Your task to perform on an android device: Add bose soundlink to the cart on target.com, then select checkout. Image 0: 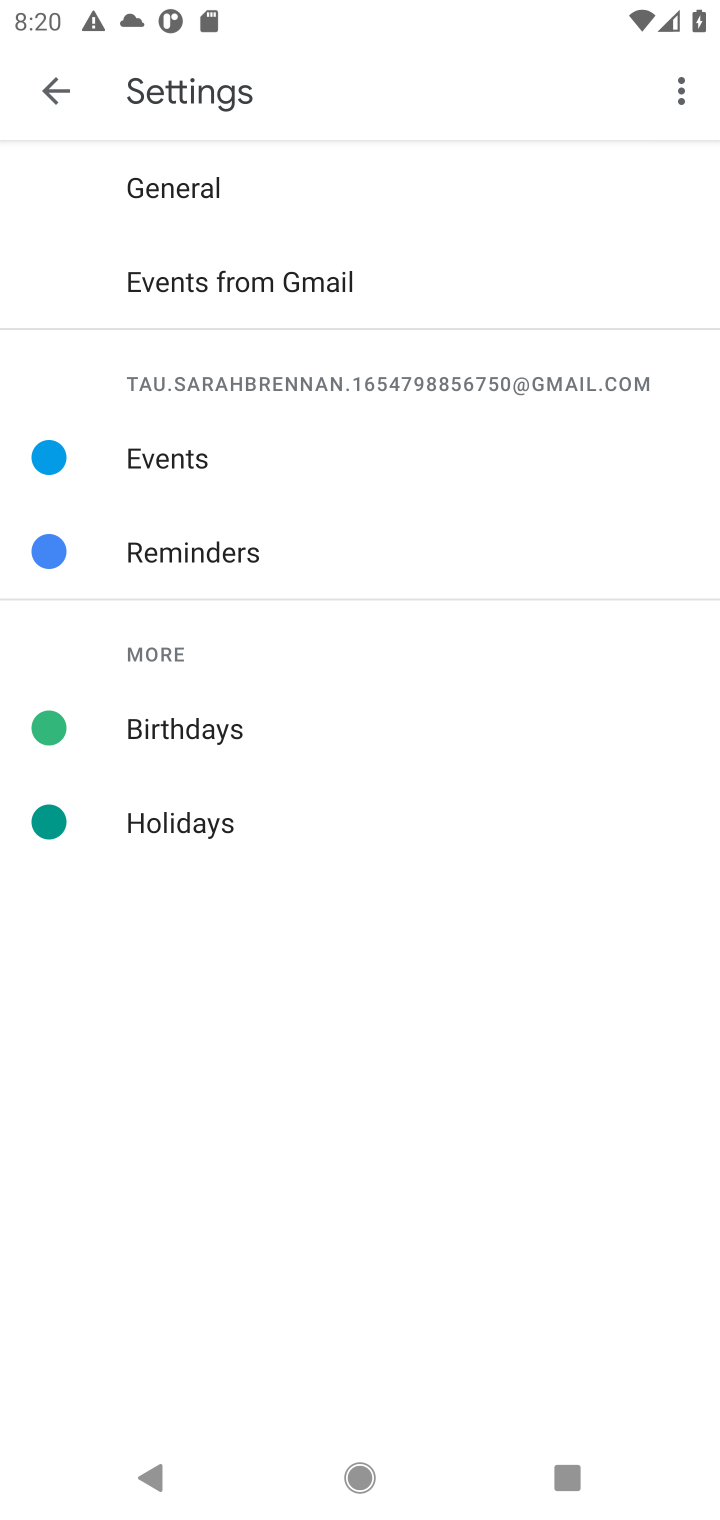
Step 0: press home button
Your task to perform on an android device: Add bose soundlink to the cart on target.com, then select checkout. Image 1: 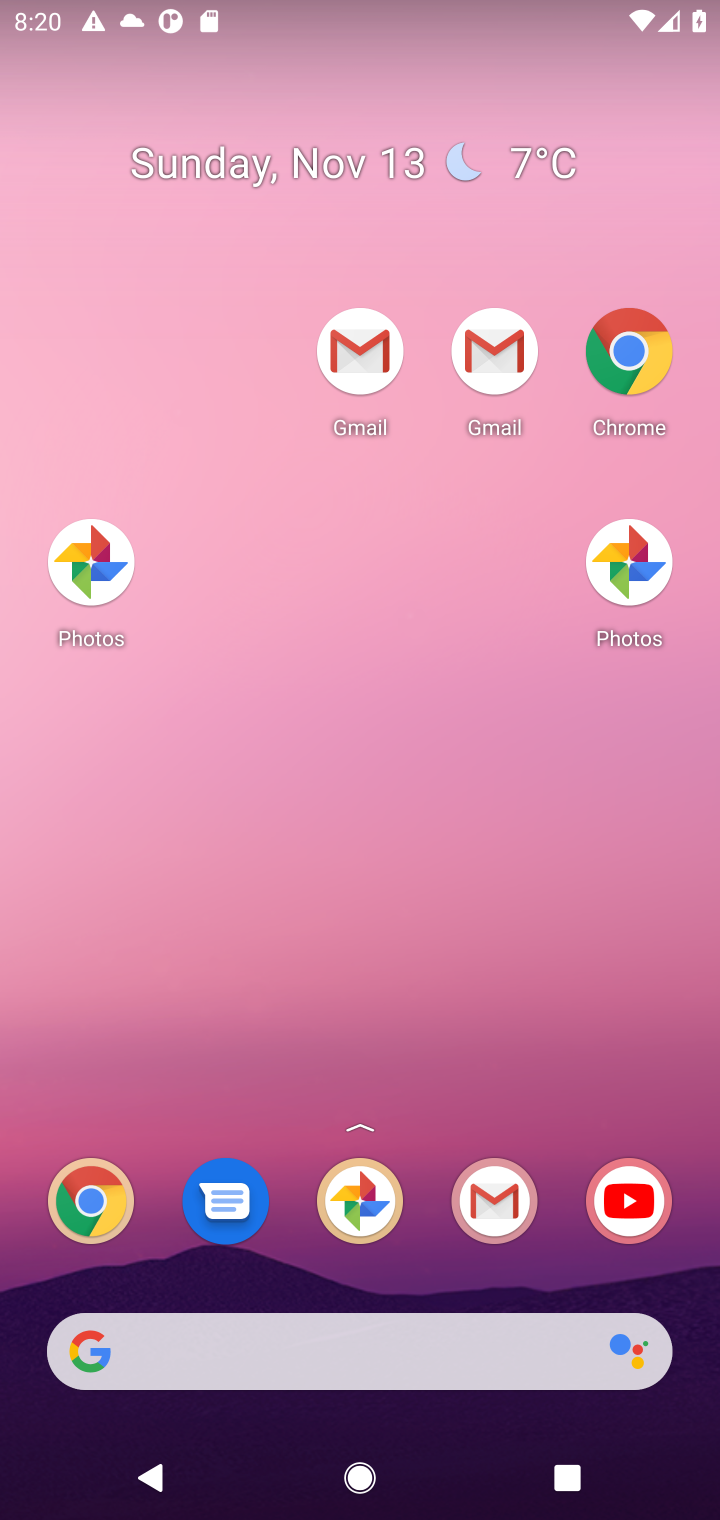
Step 1: drag from (429, 1262) to (301, 39)
Your task to perform on an android device: Add bose soundlink to the cart on target.com, then select checkout. Image 2: 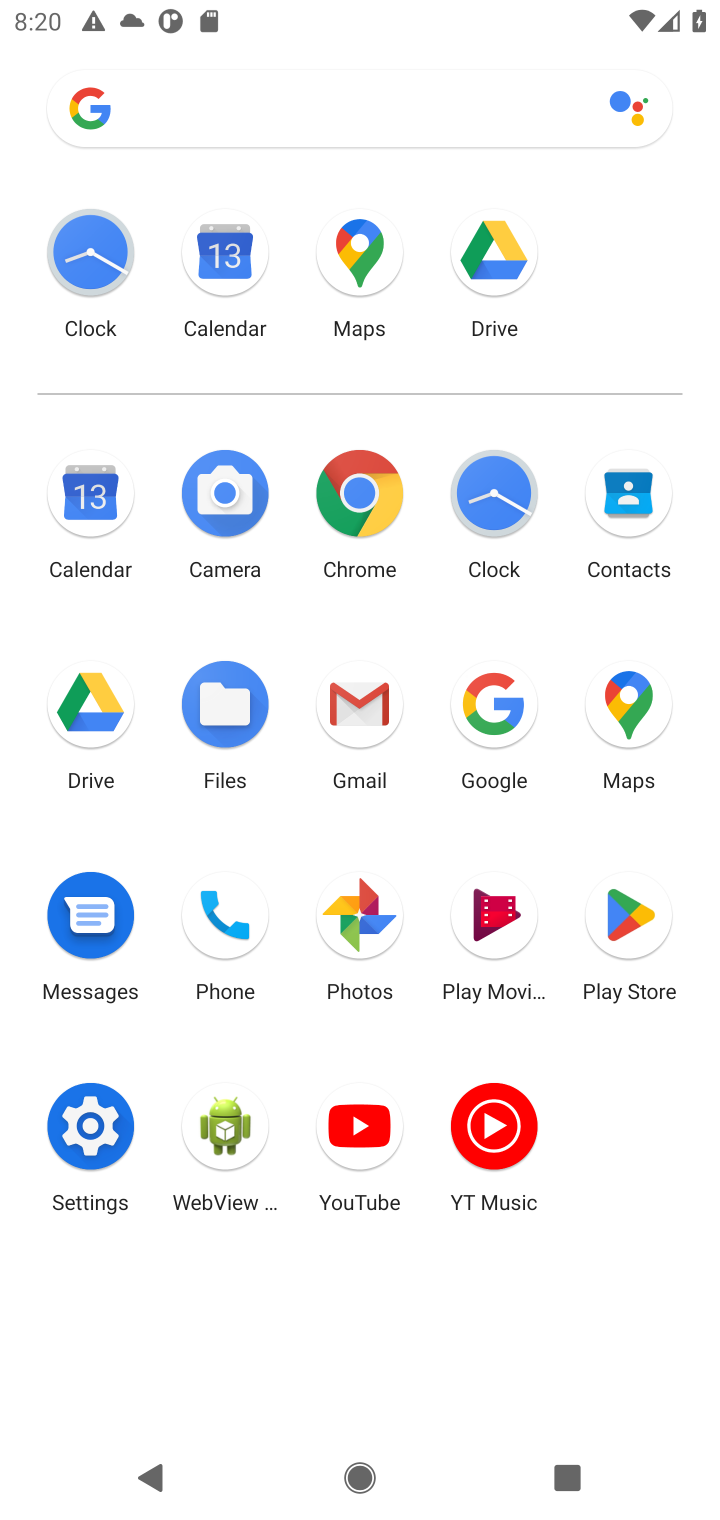
Step 2: click (354, 499)
Your task to perform on an android device: Add bose soundlink to the cart on target.com, then select checkout. Image 3: 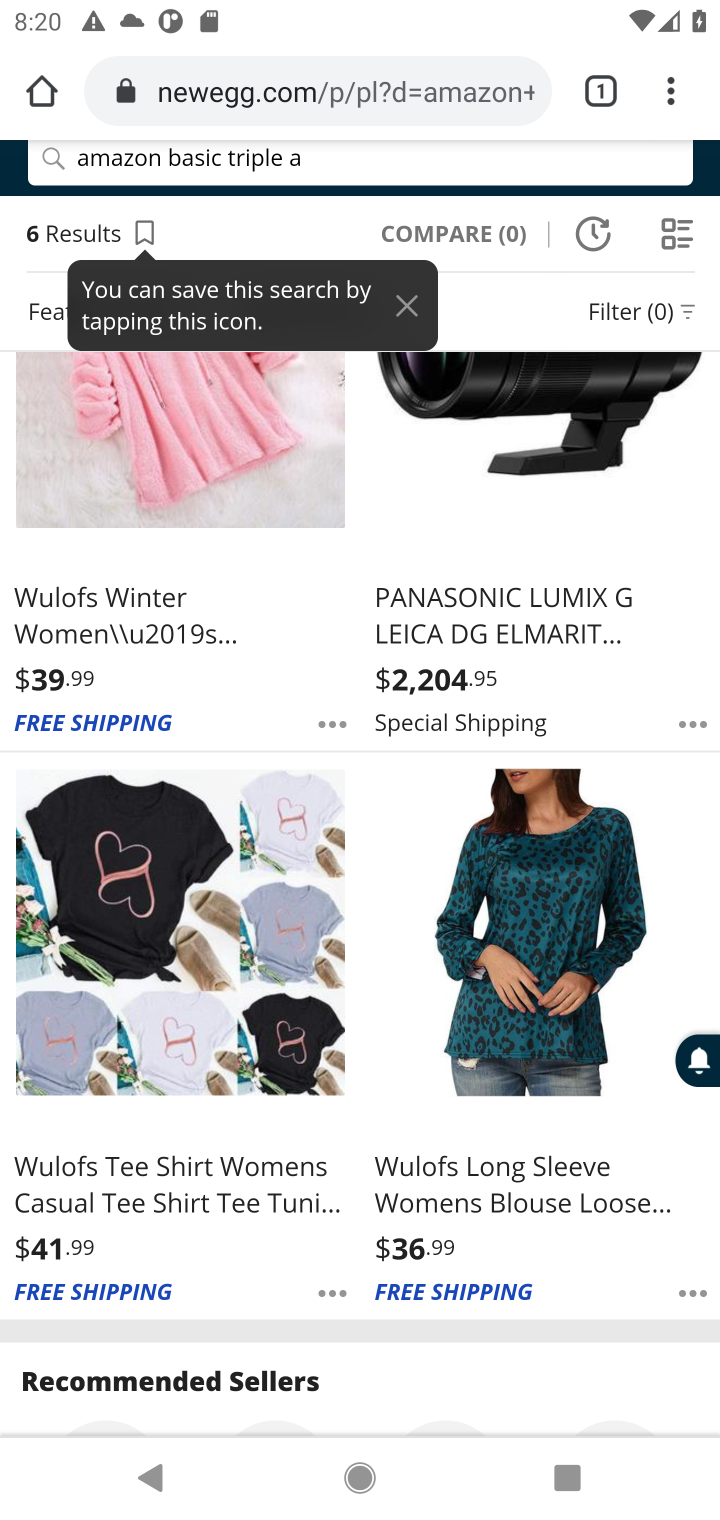
Step 3: click (402, 94)
Your task to perform on an android device: Add bose soundlink to the cart on target.com, then select checkout. Image 4: 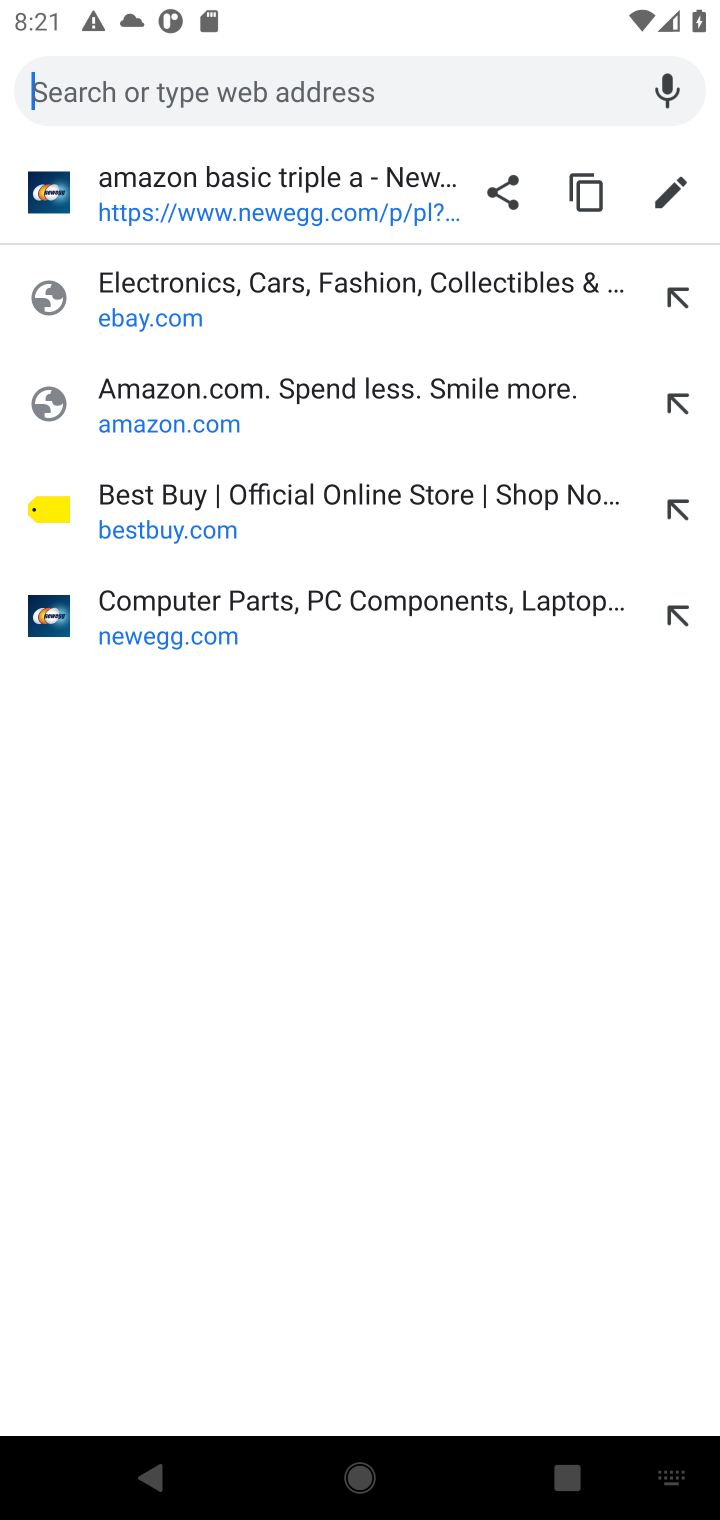
Step 4: type "target.com"
Your task to perform on an android device: Add bose soundlink to the cart on target.com, then select checkout. Image 5: 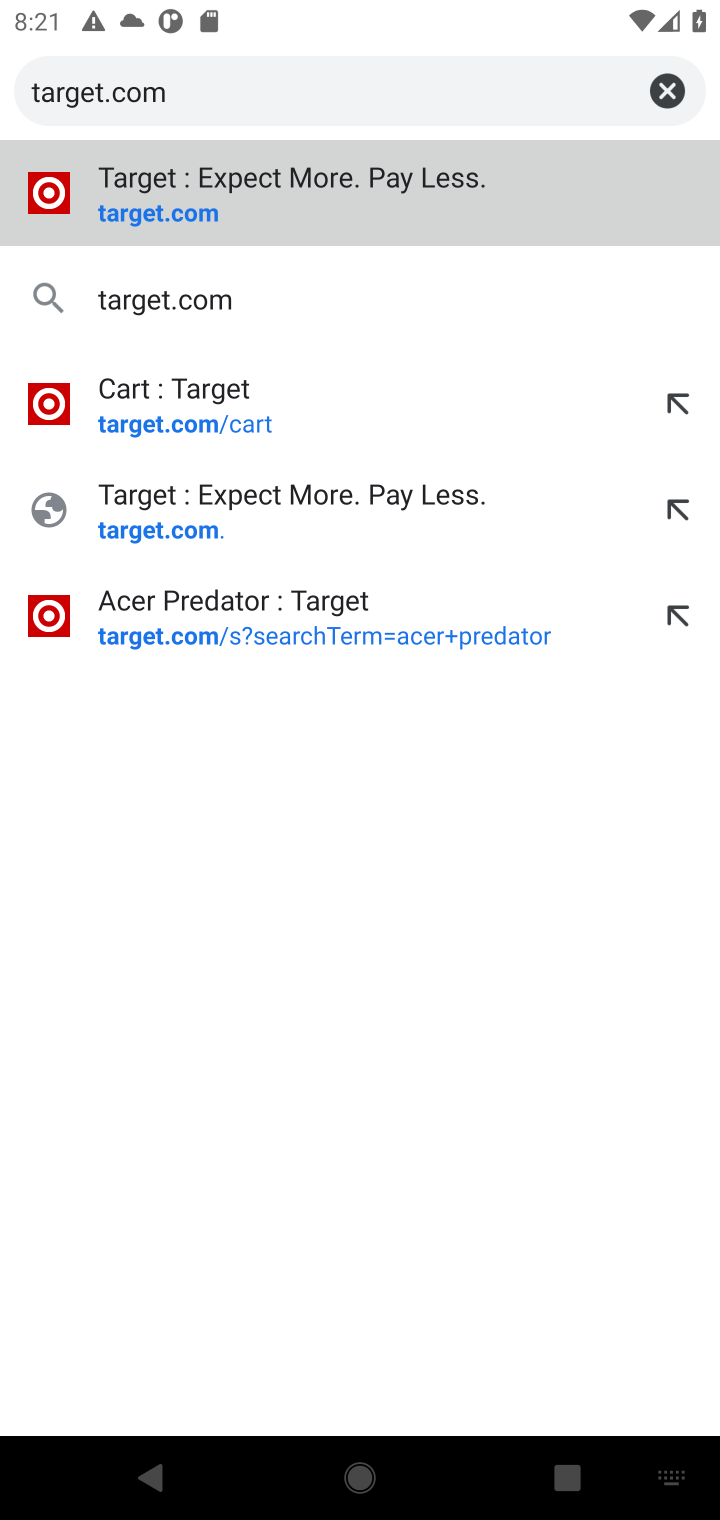
Step 5: press enter
Your task to perform on an android device: Add bose soundlink to the cart on target.com, then select checkout. Image 6: 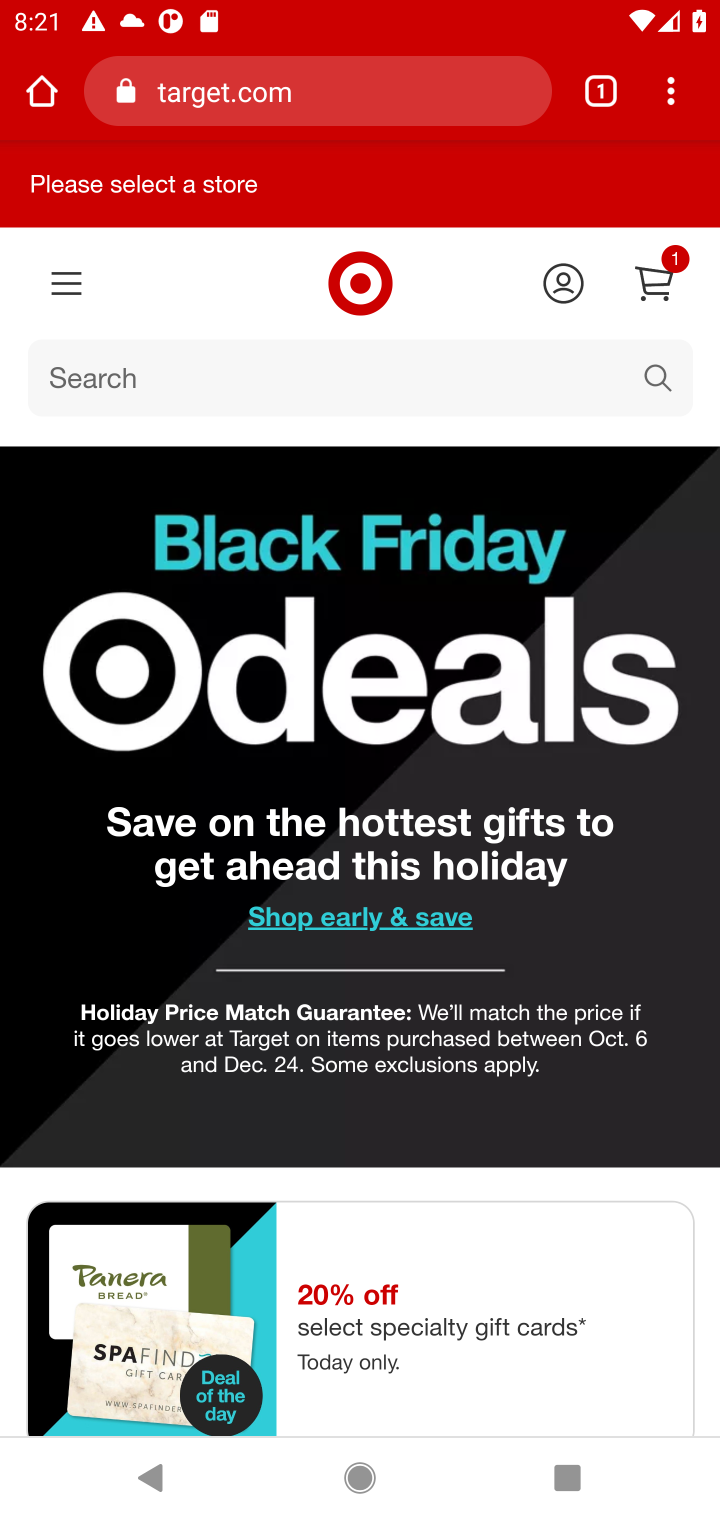
Step 6: click (284, 384)
Your task to perform on an android device: Add bose soundlink to the cart on target.com, then select checkout. Image 7: 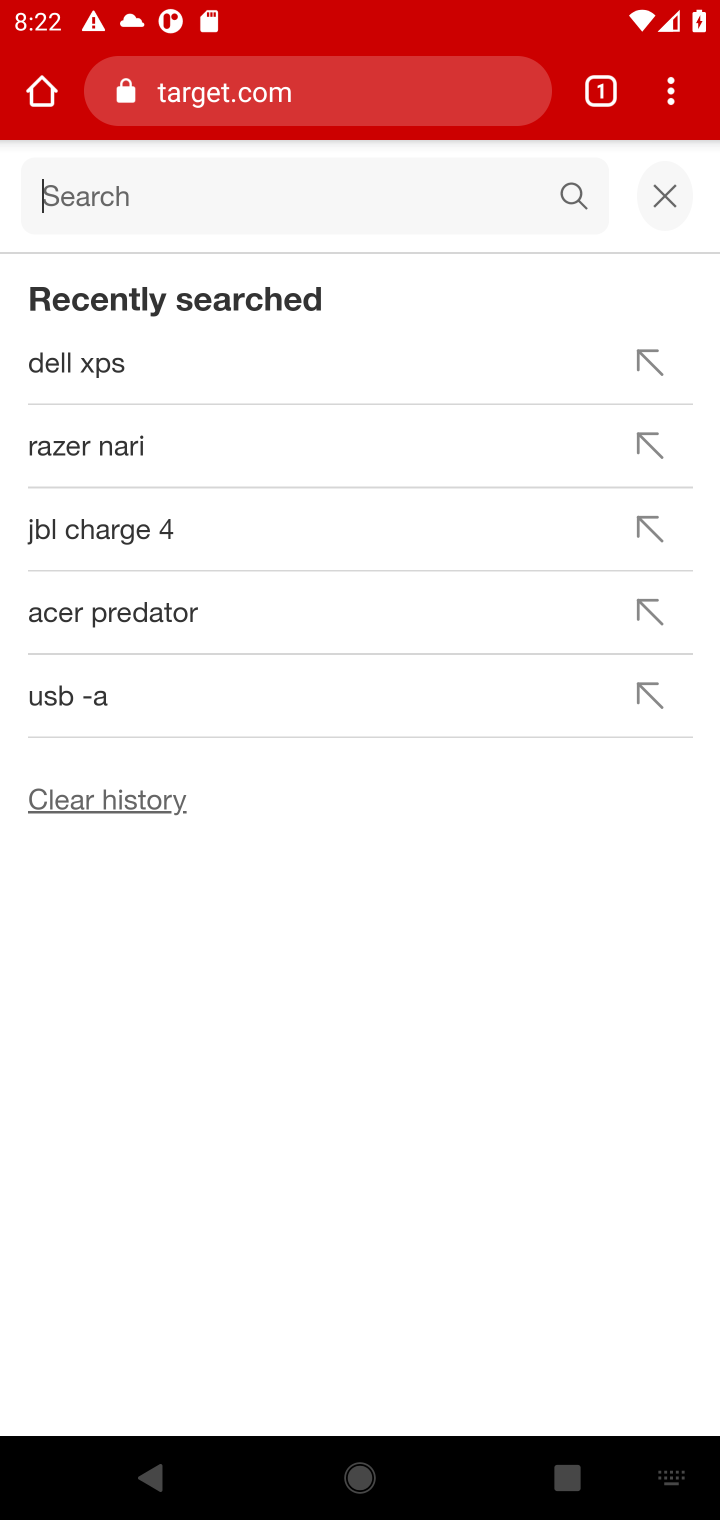
Step 7: type "bose soundlink"
Your task to perform on an android device: Add bose soundlink to the cart on target.com, then select checkout. Image 8: 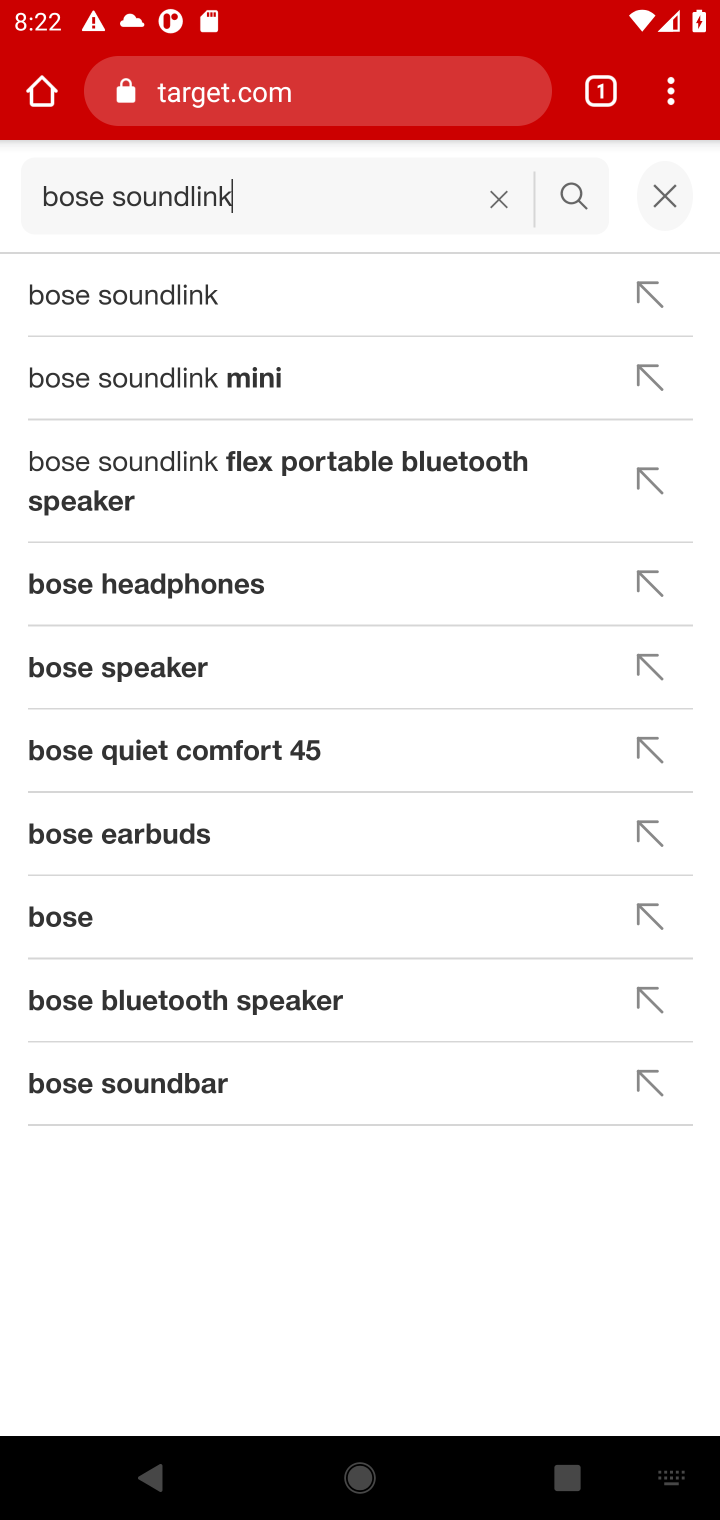
Step 8: press enter
Your task to perform on an android device: Add bose soundlink to the cart on target.com, then select checkout. Image 9: 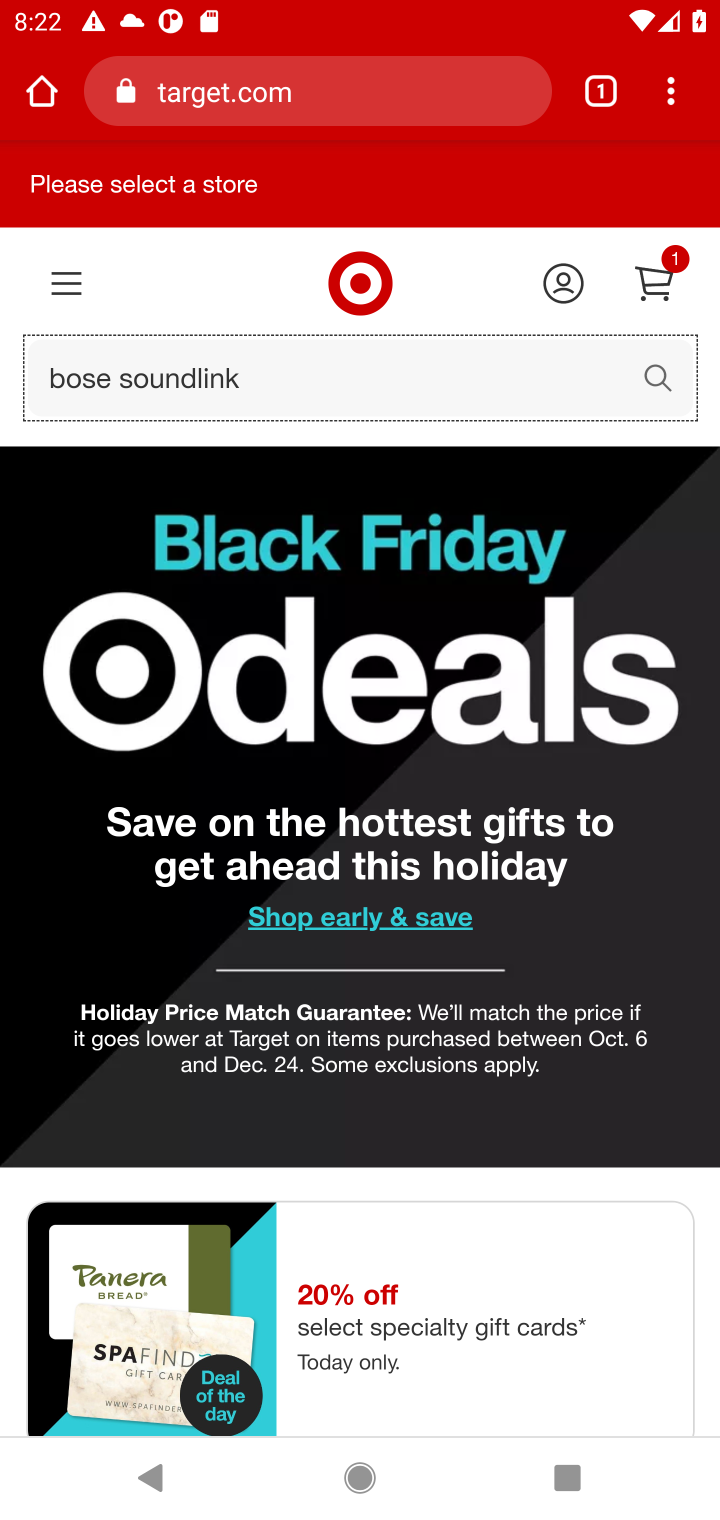
Step 9: press enter
Your task to perform on an android device: Add bose soundlink to the cart on target.com, then select checkout. Image 10: 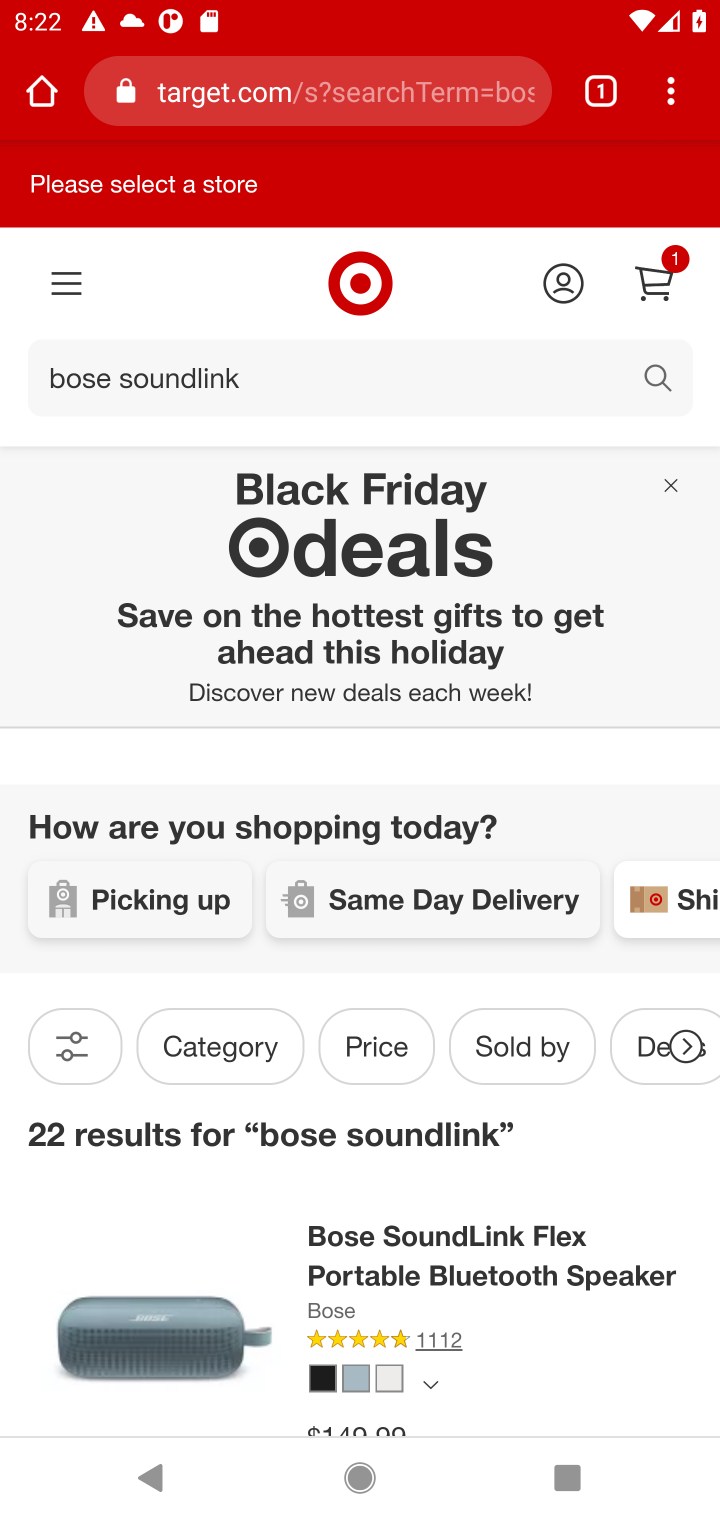
Step 10: drag from (459, 1124) to (461, 599)
Your task to perform on an android device: Add bose soundlink to the cart on target.com, then select checkout. Image 11: 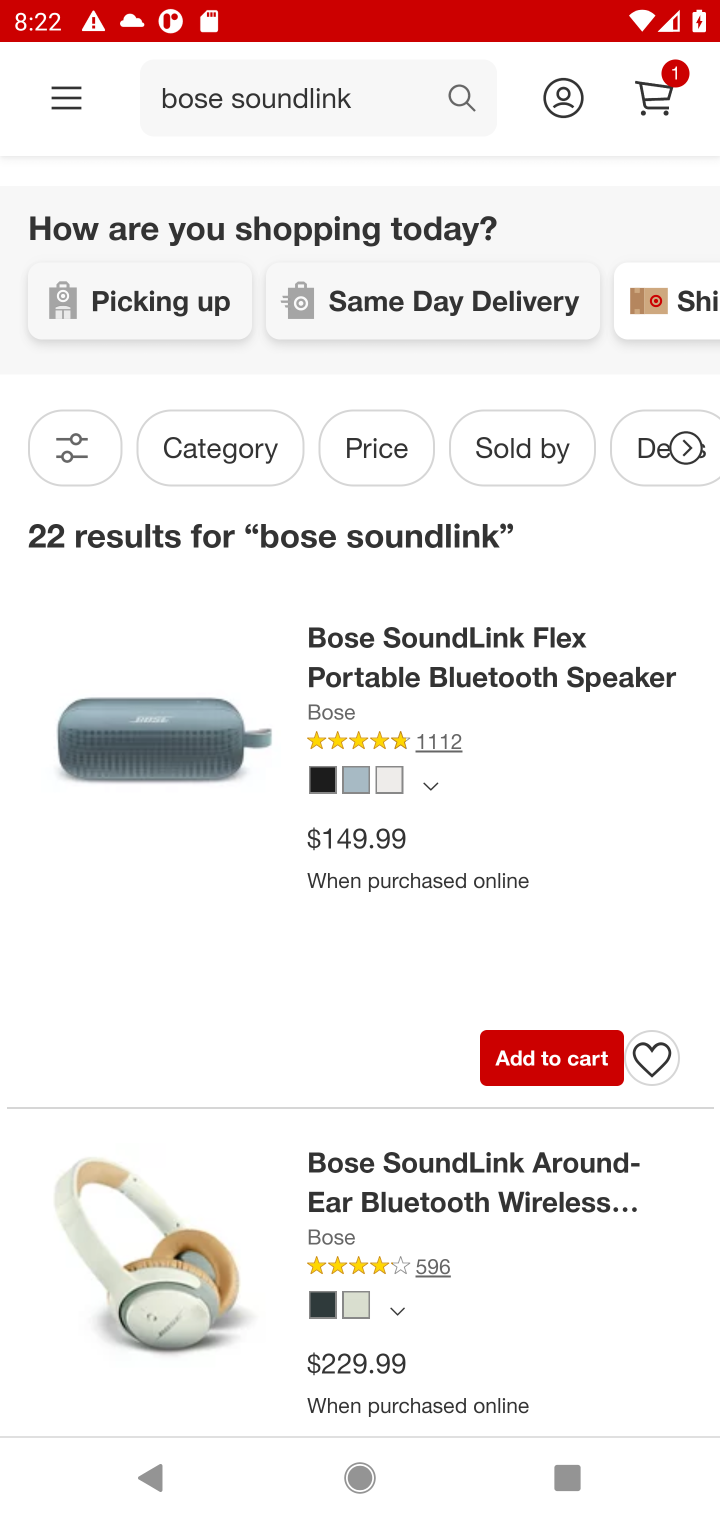
Step 11: click (558, 1066)
Your task to perform on an android device: Add bose soundlink to the cart on target.com, then select checkout. Image 12: 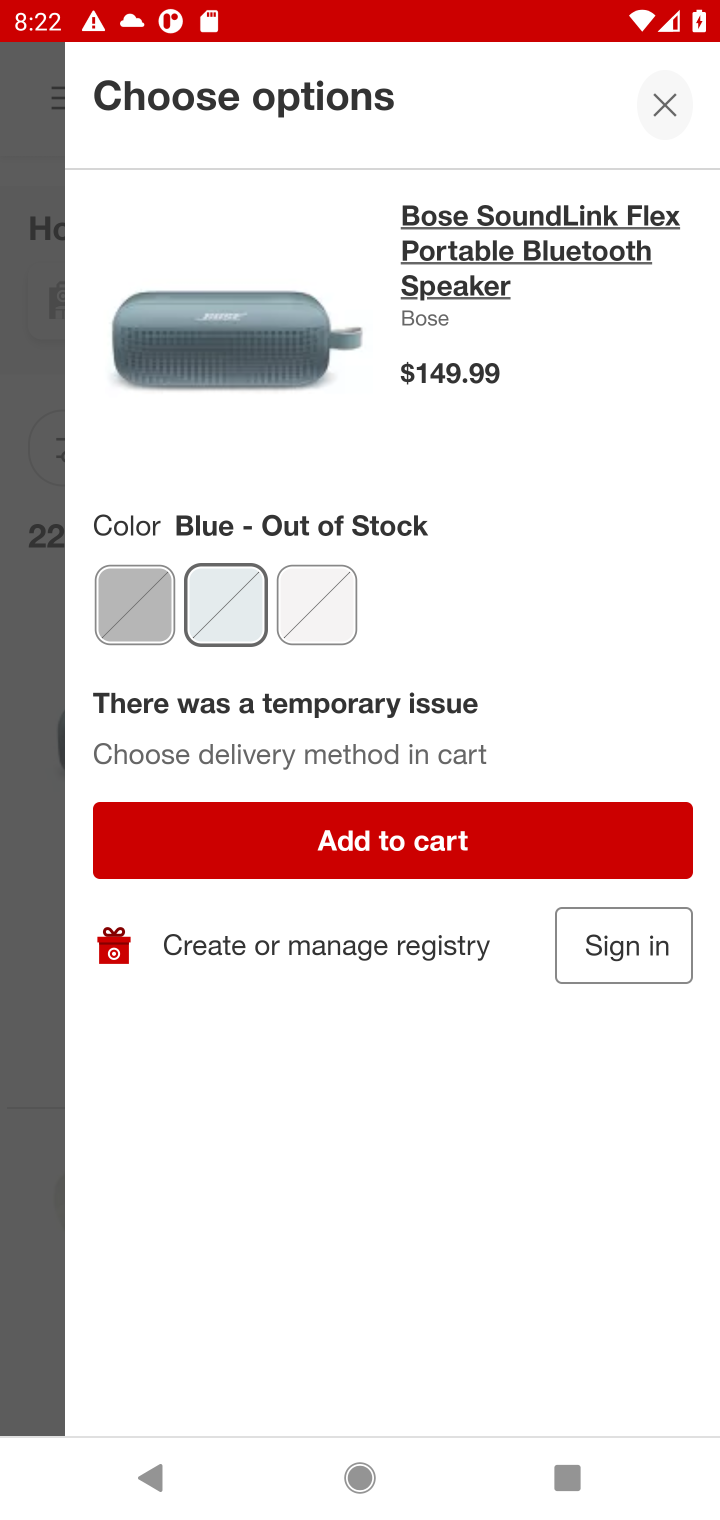
Step 12: click (416, 828)
Your task to perform on an android device: Add bose soundlink to the cart on target.com, then select checkout. Image 13: 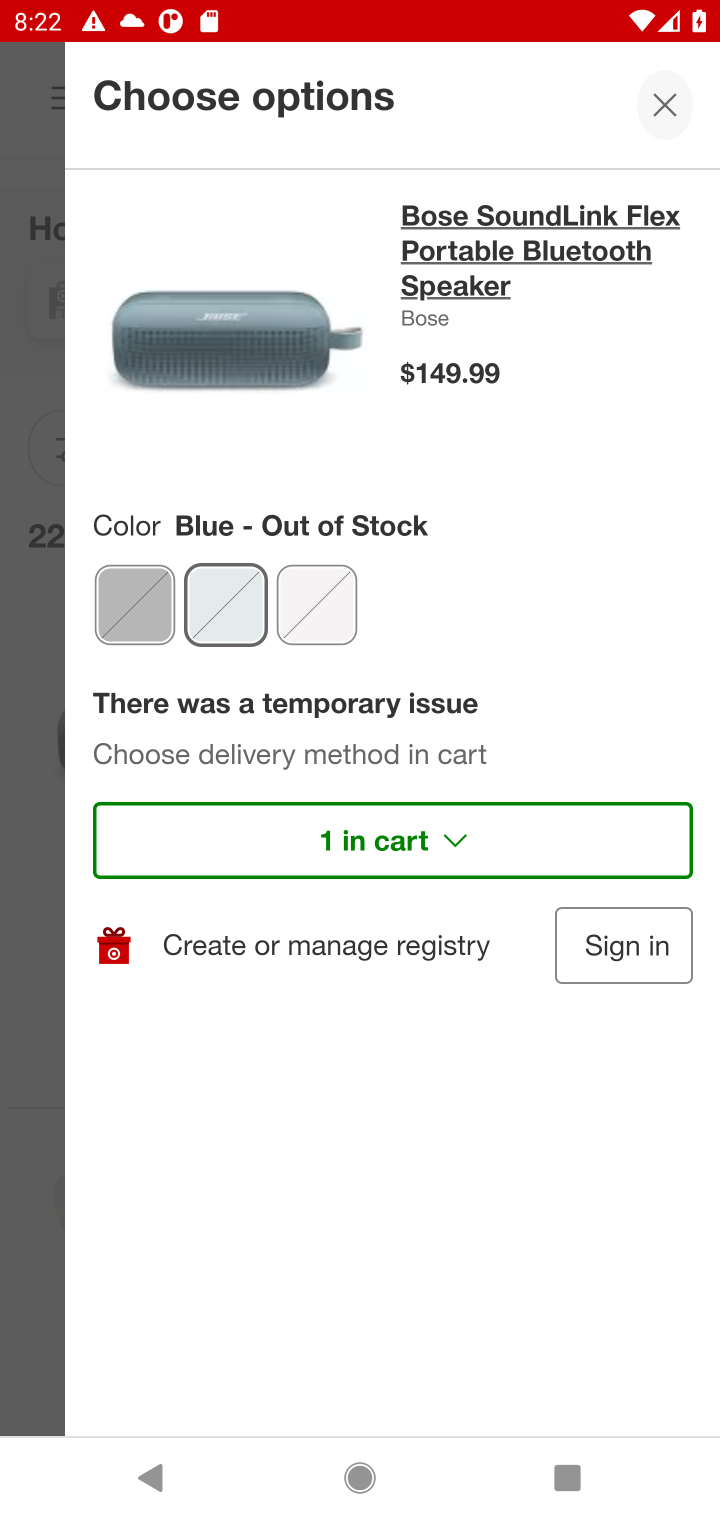
Step 13: task complete